Your task to perform on an android device: change the clock display to analog Image 0: 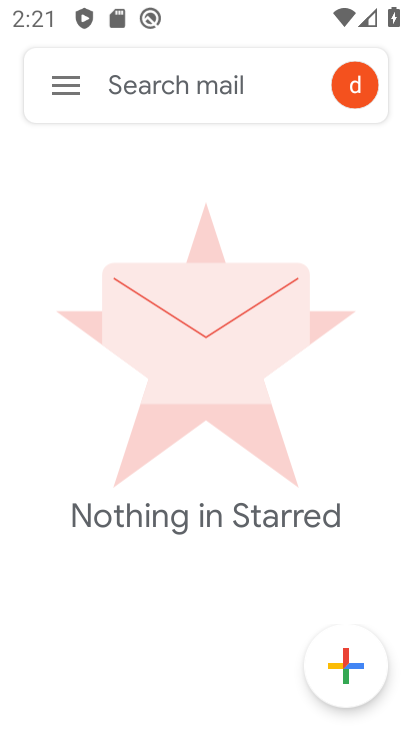
Step 0: press back button
Your task to perform on an android device: change the clock display to analog Image 1: 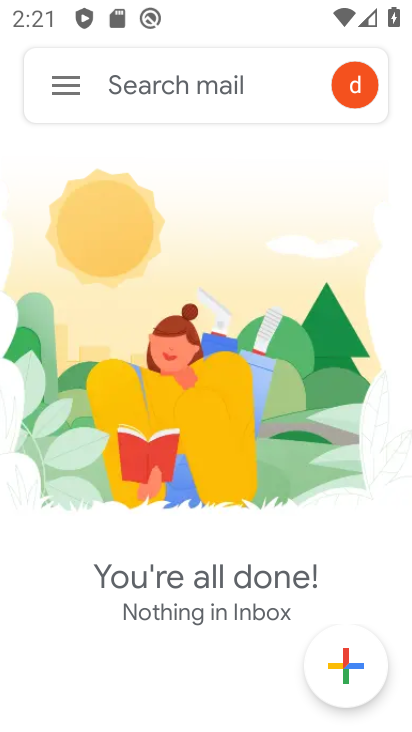
Step 1: press home button
Your task to perform on an android device: change the clock display to analog Image 2: 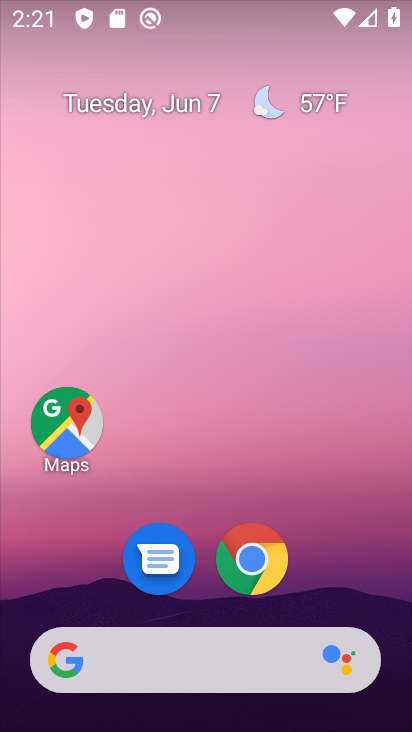
Step 2: drag from (329, 524) to (217, 0)
Your task to perform on an android device: change the clock display to analog Image 3: 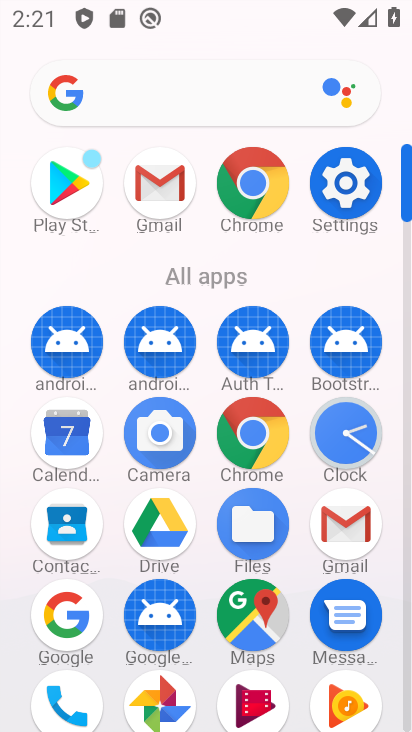
Step 3: drag from (4, 611) to (28, 199)
Your task to perform on an android device: change the clock display to analog Image 4: 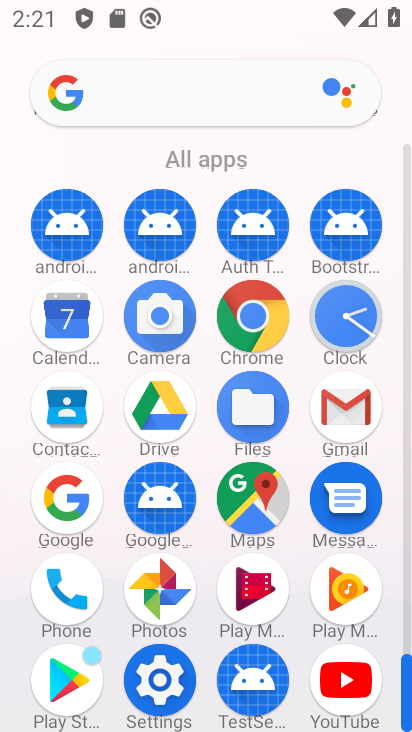
Step 4: click (349, 309)
Your task to perform on an android device: change the clock display to analog Image 5: 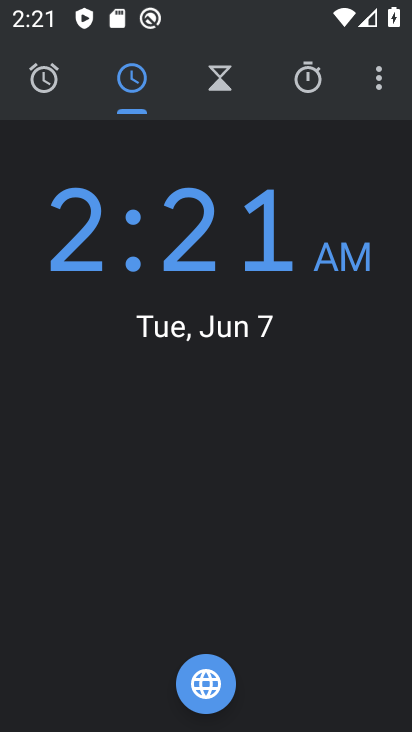
Step 5: drag from (378, 73) to (166, 145)
Your task to perform on an android device: change the clock display to analog Image 6: 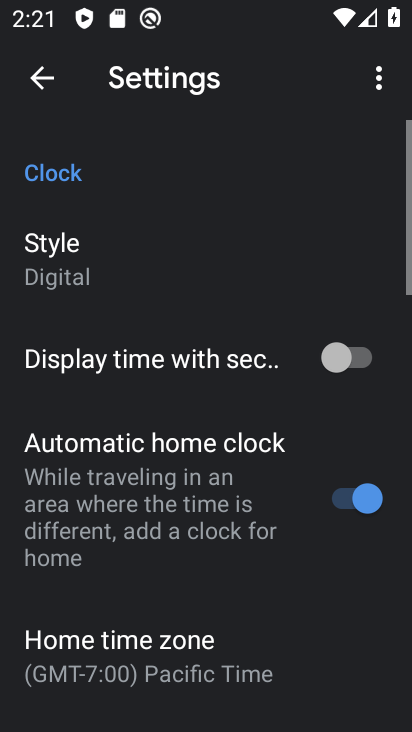
Step 6: click (46, 254)
Your task to perform on an android device: change the clock display to analog Image 7: 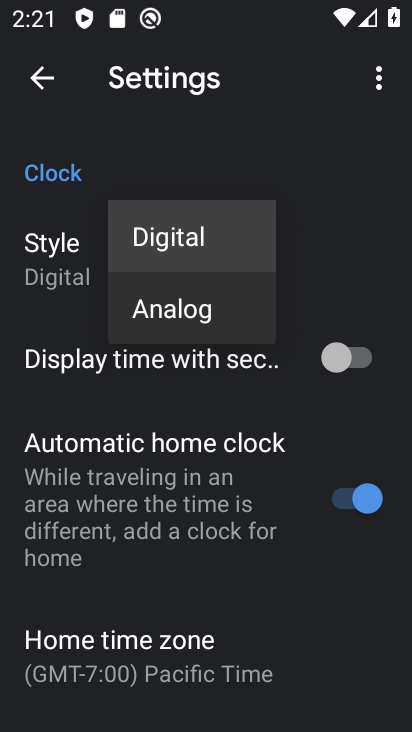
Step 7: click (154, 316)
Your task to perform on an android device: change the clock display to analog Image 8: 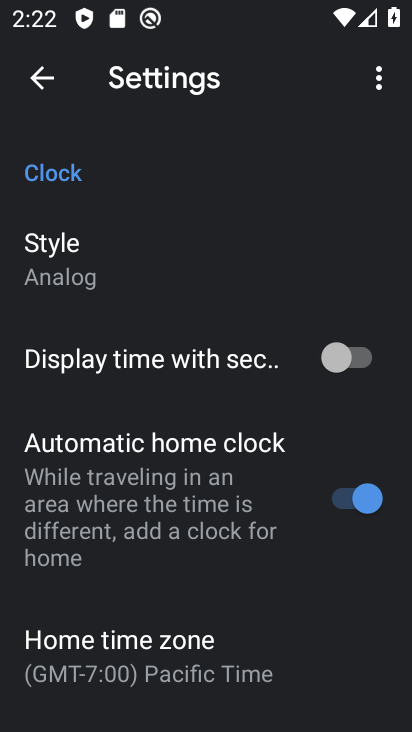
Step 8: task complete